Your task to perform on an android device: toggle data saver in the chrome app Image 0: 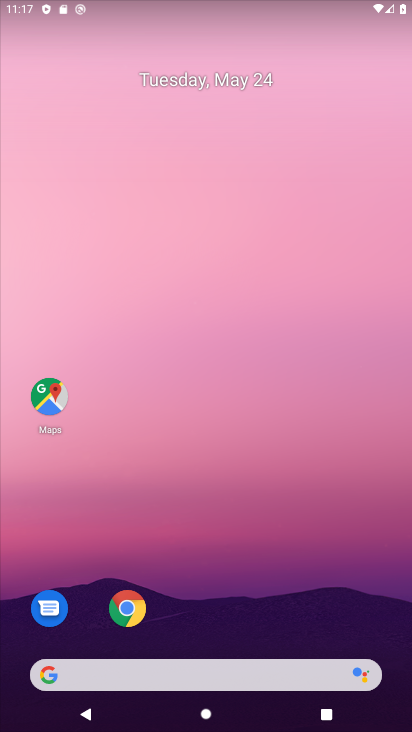
Step 0: click (134, 603)
Your task to perform on an android device: toggle data saver in the chrome app Image 1: 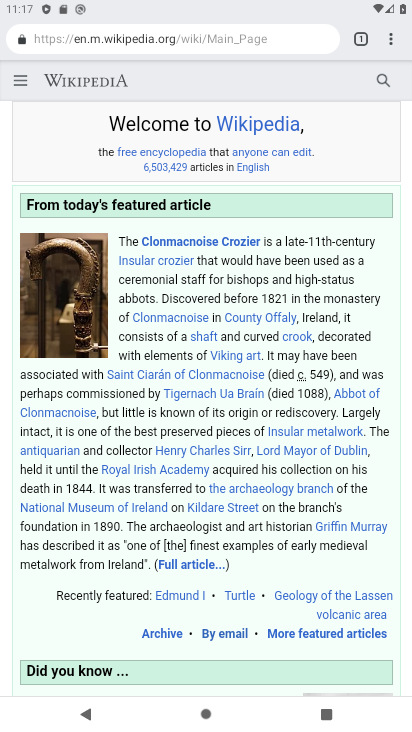
Step 1: click (396, 47)
Your task to perform on an android device: toggle data saver in the chrome app Image 2: 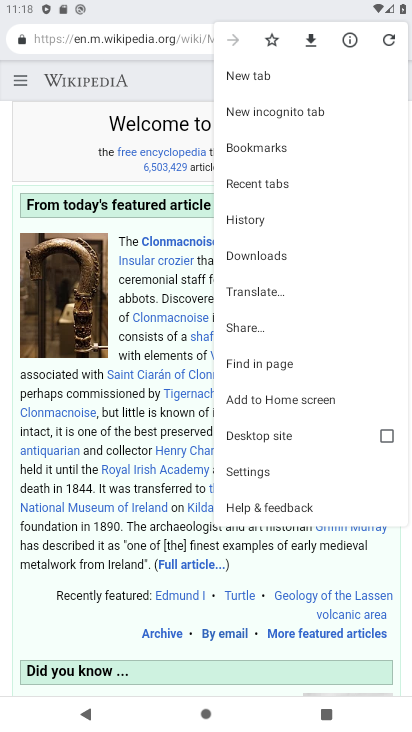
Step 2: drag from (295, 455) to (297, 239)
Your task to perform on an android device: toggle data saver in the chrome app Image 3: 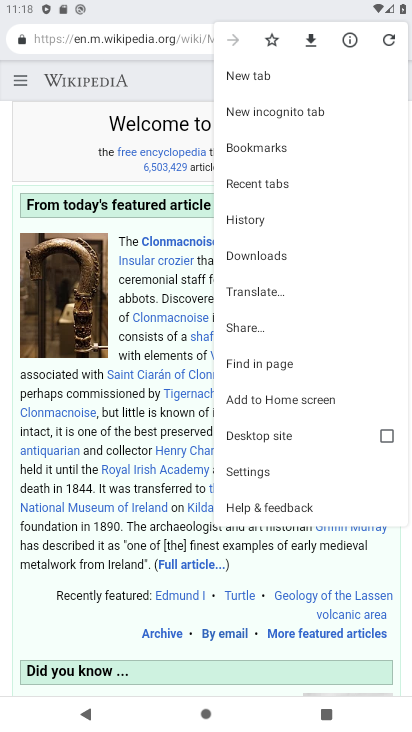
Step 3: click (293, 473)
Your task to perform on an android device: toggle data saver in the chrome app Image 4: 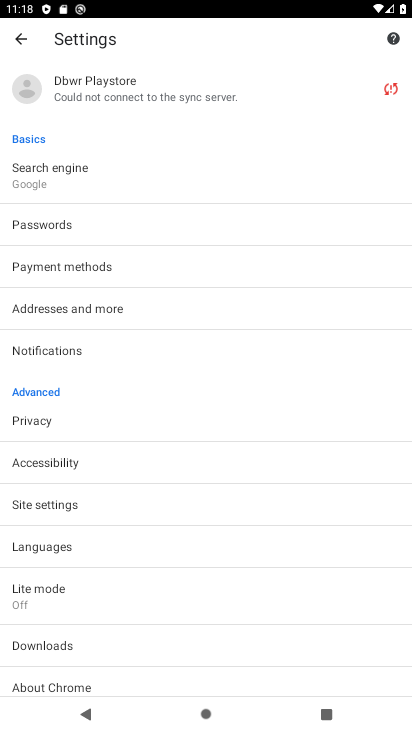
Step 4: click (145, 510)
Your task to perform on an android device: toggle data saver in the chrome app Image 5: 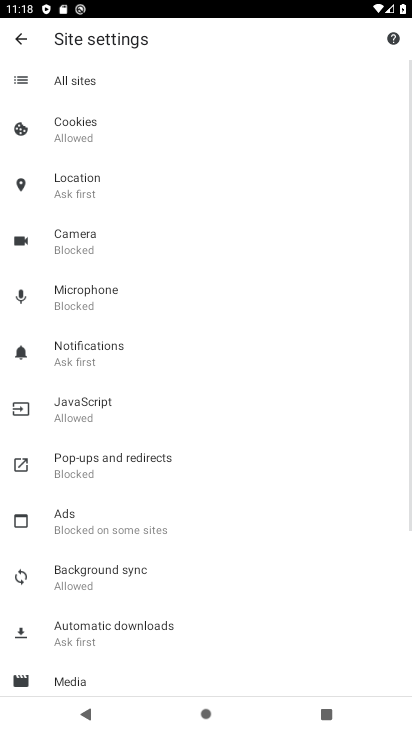
Step 5: click (100, 418)
Your task to perform on an android device: toggle data saver in the chrome app Image 6: 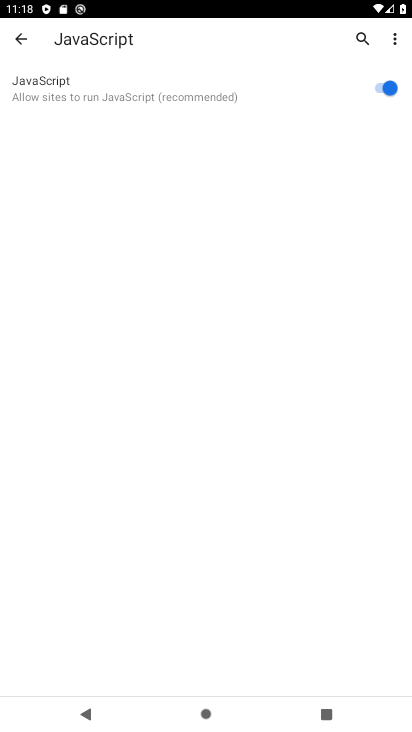
Step 6: click (392, 81)
Your task to perform on an android device: toggle data saver in the chrome app Image 7: 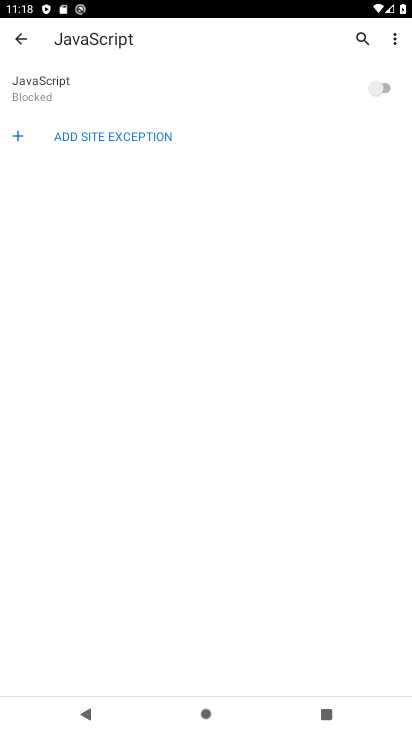
Step 7: task complete